Your task to perform on an android device: Go to Android settings Image 0: 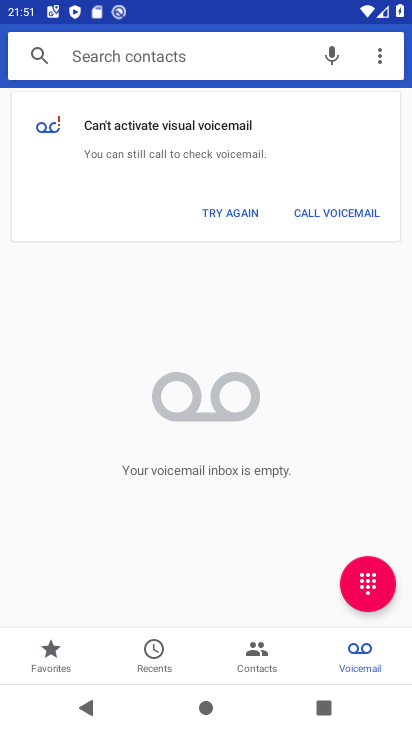
Step 0: press home button
Your task to perform on an android device: Go to Android settings Image 1: 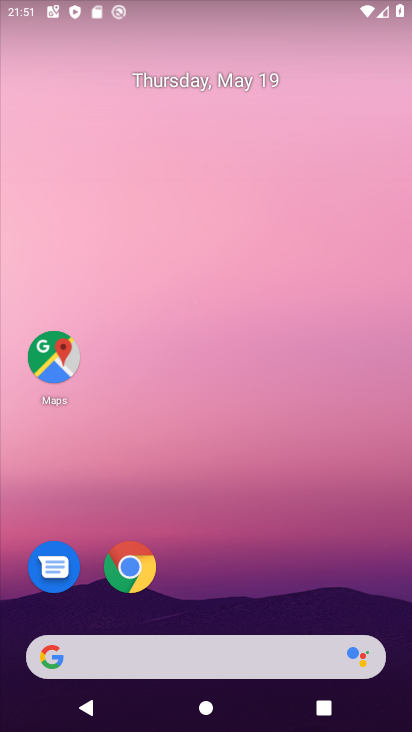
Step 1: drag from (233, 591) to (290, 95)
Your task to perform on an android device: Go to Android settings Image 2: 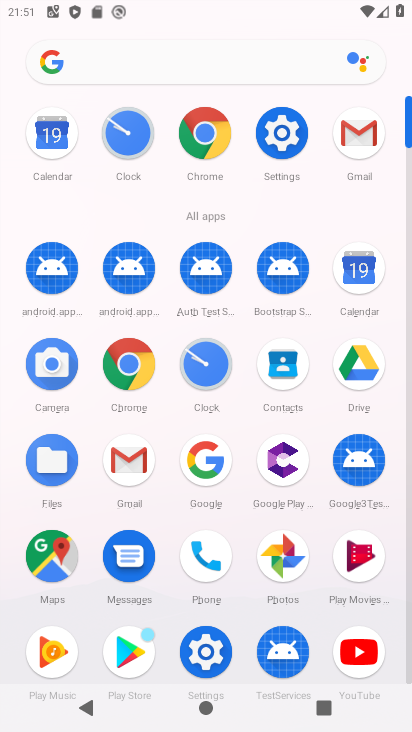
Step 2: click (284, 129)
Your task to perform on an android device: Go to Android settings Image 3: 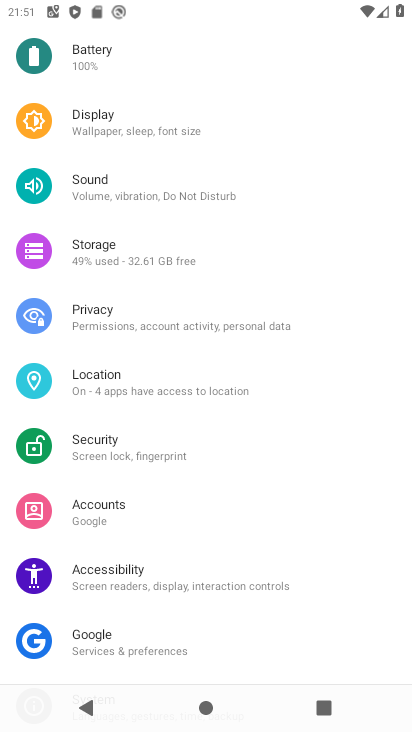
Step 3: drag from (174, 634) to (221, 184)
Your task to perform on an android device: Go to Android settings Image 4: 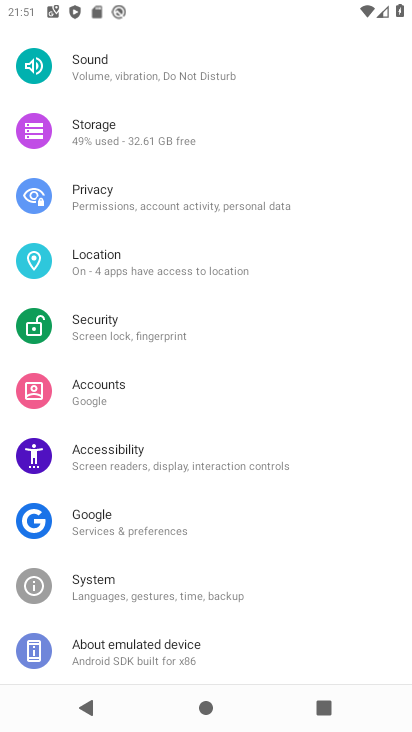
Step 4: click (159, 647)
Your task to perform on an android device: Go to Android settings Image 5: 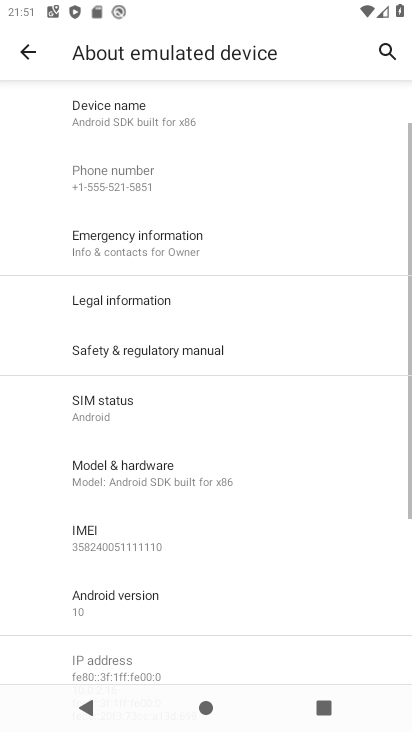
Step 5: click (156, 618)
Your task to perform on an android device: Go to Android settings Image 6: 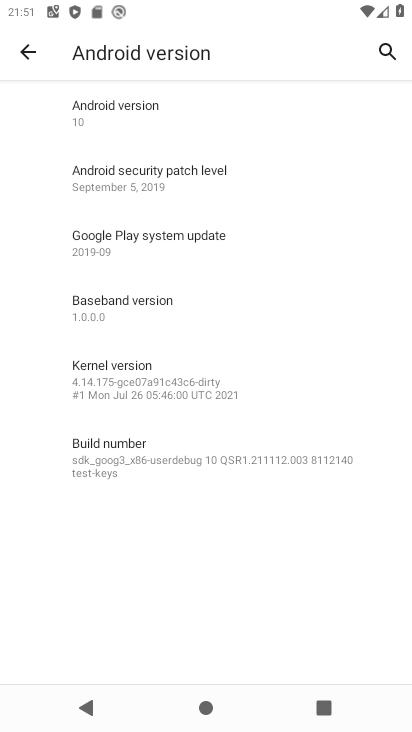
Step 6: task complete